Your task to perform on an android device: Check the weather Image 0: 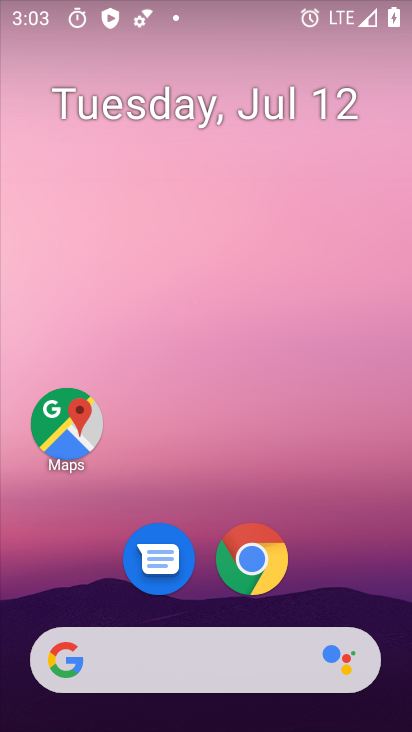
Step 0: click (231, 642)
Your task to perform on an android device: Check the weather Image 1: 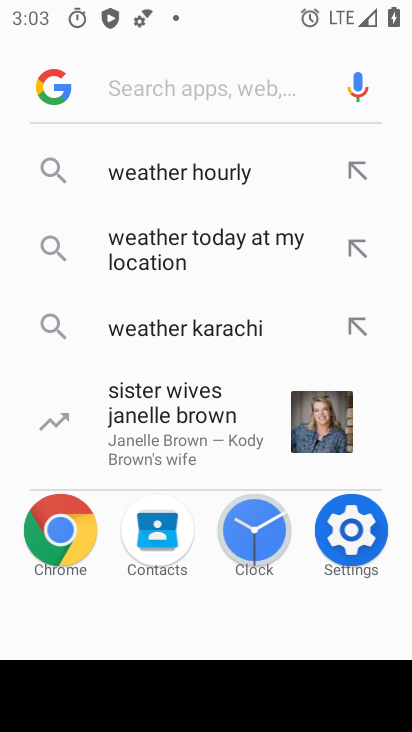
Step 1: type "weather"
Your task to perform on an android device: Check the weather Image 2: 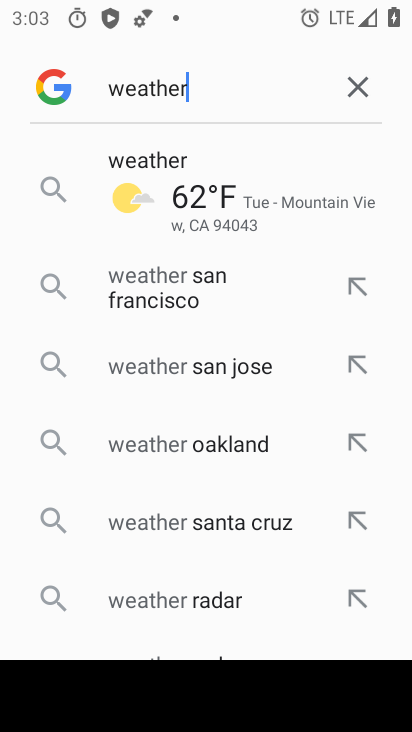
Step 2: click (263, 196)
Your task to perform on an android device: Check the weather Image 3: 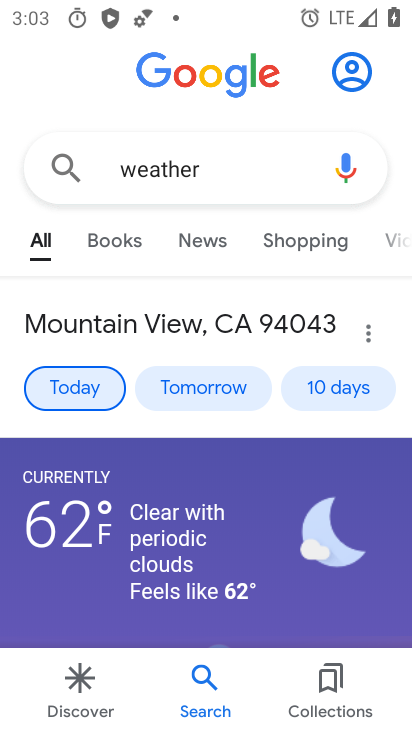
Step 3: task complete